Your task to perform on an android device: turn notification dots off Image 0: 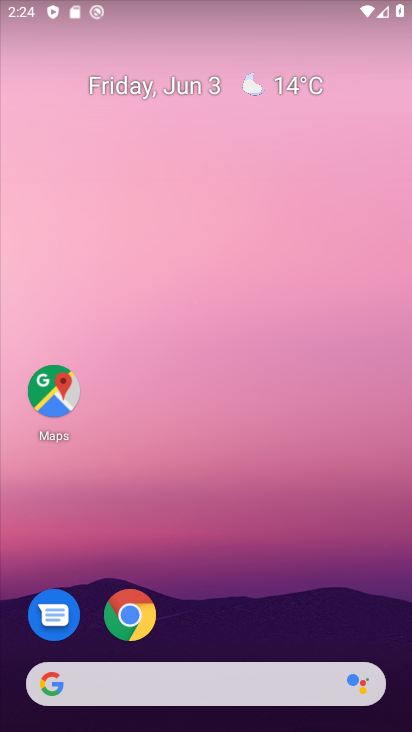
Step 0: press home button
Your task to perform on an android device: turn notification dots off Image 1: 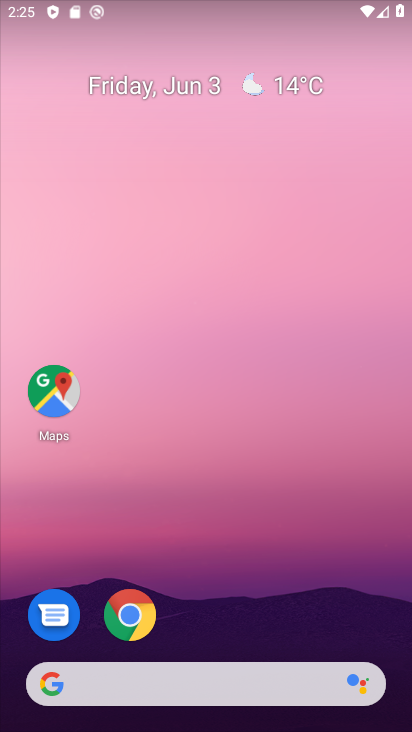
Step 1: drag from (214, 587) to (191, 192)
Your task to perform on an android device: turn notification dots off Image 2: 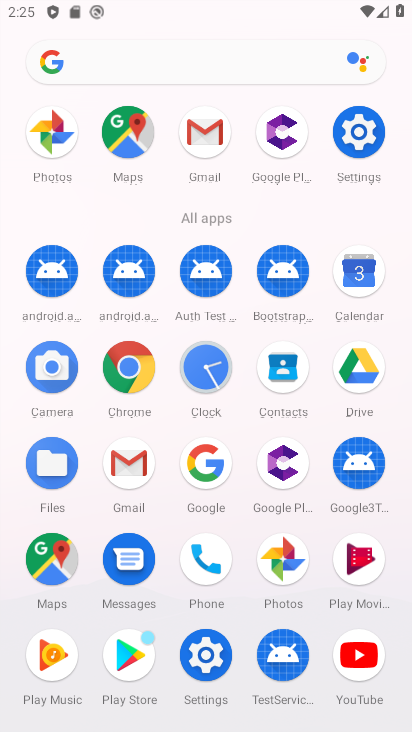
Step 2: click (356, 129)
Your task to perform on an android device: turn notification dots off Image 3: 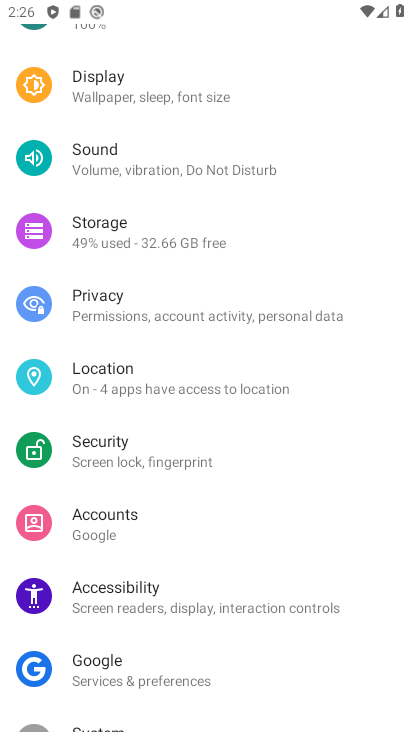
Step 3: drag from (288, 259) to (334, 639)
Your task to perform on an android device: turn notification dots off Image 4: 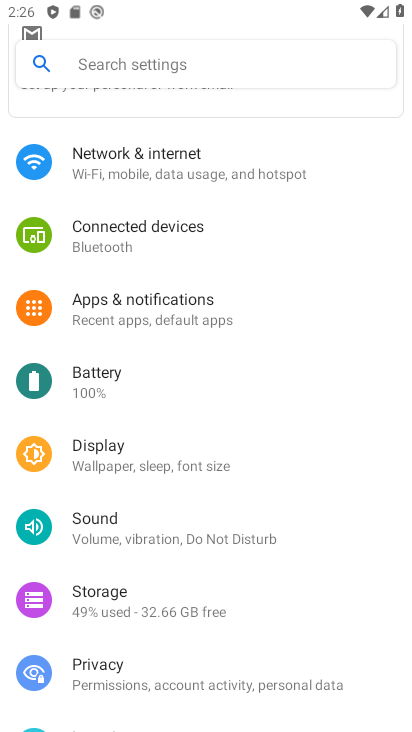
Step 4: click (136, 310)
Your task to perform on an android device: turn notification dots off Image 5: 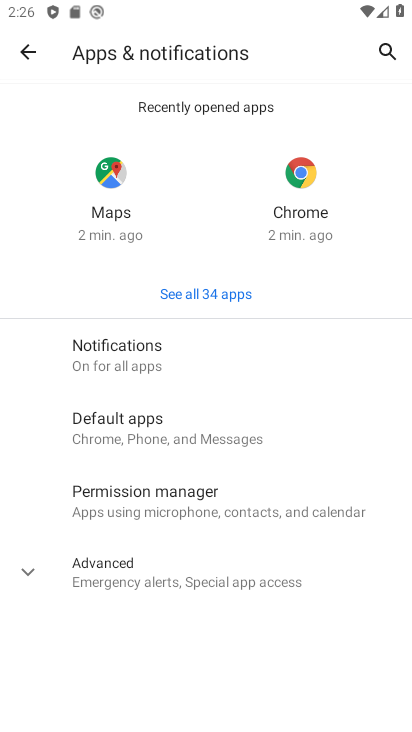
Step 5: click (115, 353)
Your task to perform on an android device: turn notification dots off Image 6: 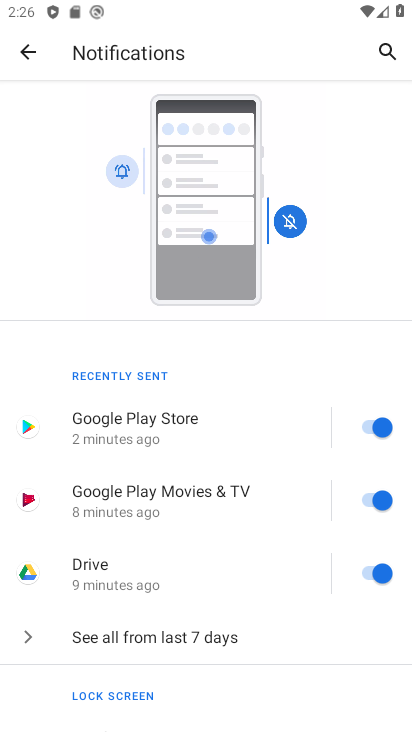
Step 6: drag from (314, 697) to (277, 124)
Your task to perform on an android device: turn notification dots off Image 7: 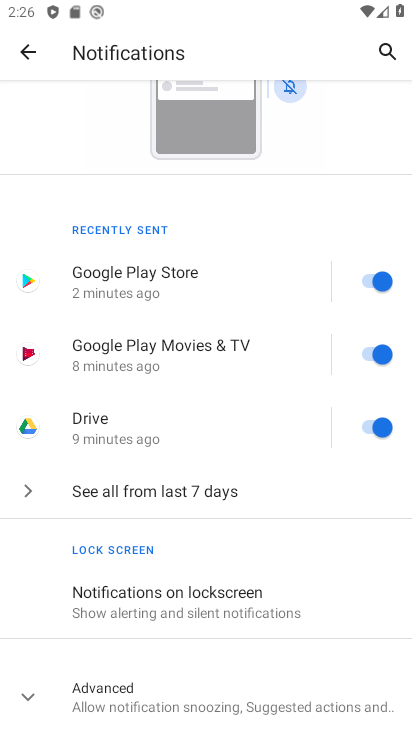
Step 7: click (114, 694)
Your task to perform on an android device: turn notification dots off Image 8: 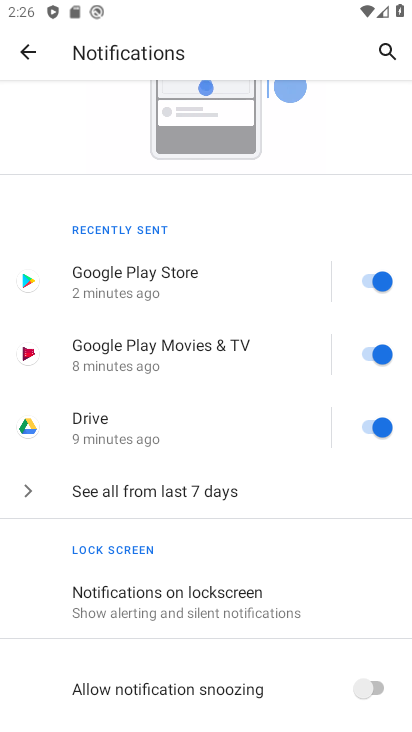
Step 8: drag from (216, 657) to (228, 268)
Your task to perform on an android device: turn notification dots off Image 9: 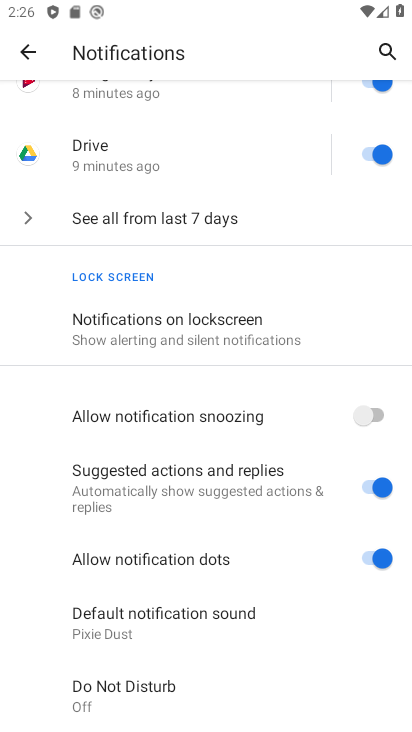
Step 9: click (378, 566)
Your task to perform on an android device: turn notification dots off Image 10: 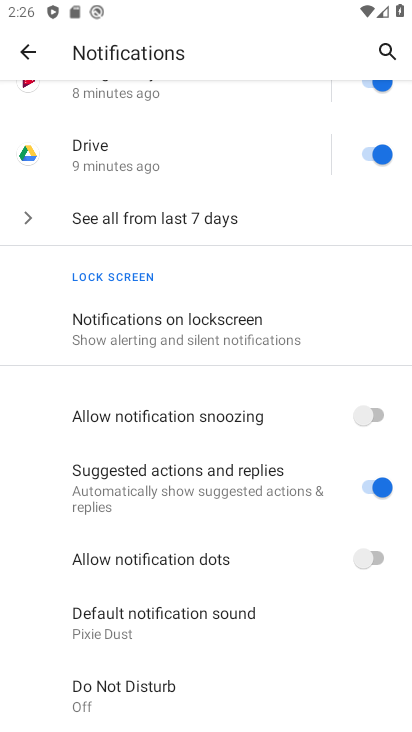
Step 10: task complete